Your task to perform on an android device: toggle wifi Image 0: 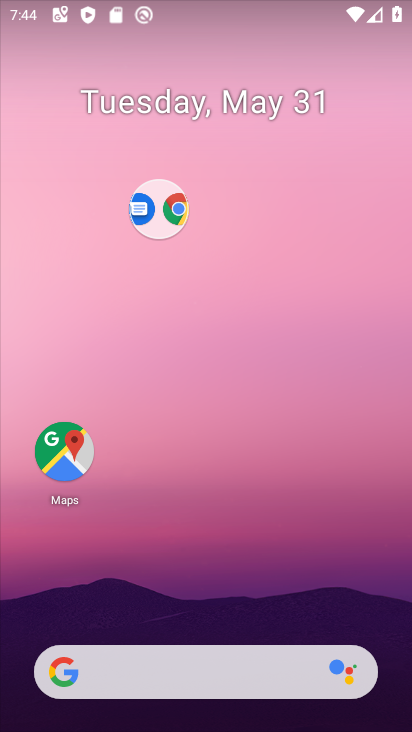
Step 0: drag from (190, 604) to (128, 28)
Your task to perform on an android device: toggle wifi Image 1: 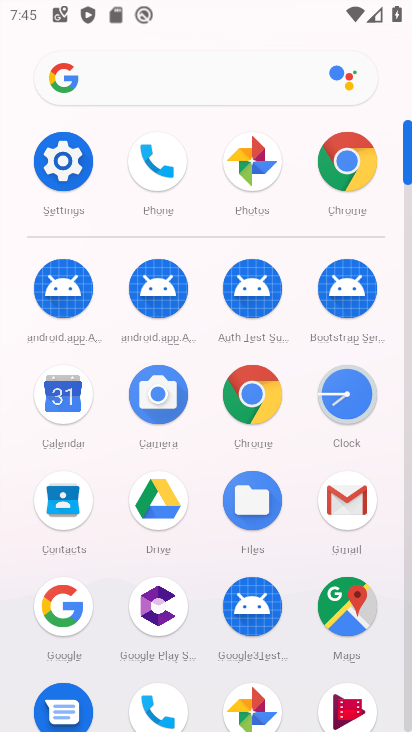
Step 1: click (75, 161)
Your task to perform on an android device: toggle wifi Image 2: 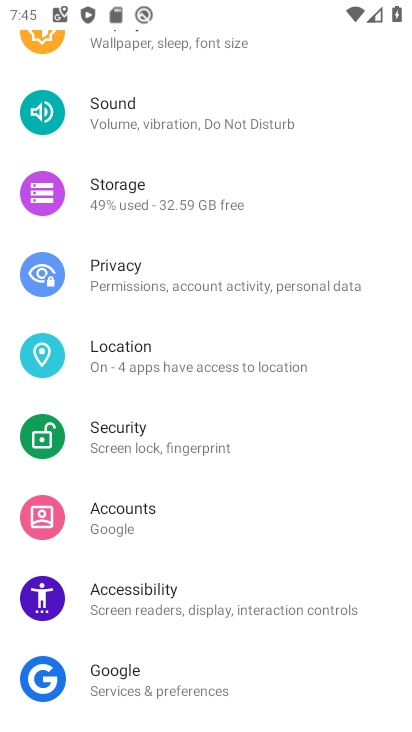
Step 2: drag from (194, 137) to (202, 471)
Your task to perform on an android device: toggle wifi Image 3: 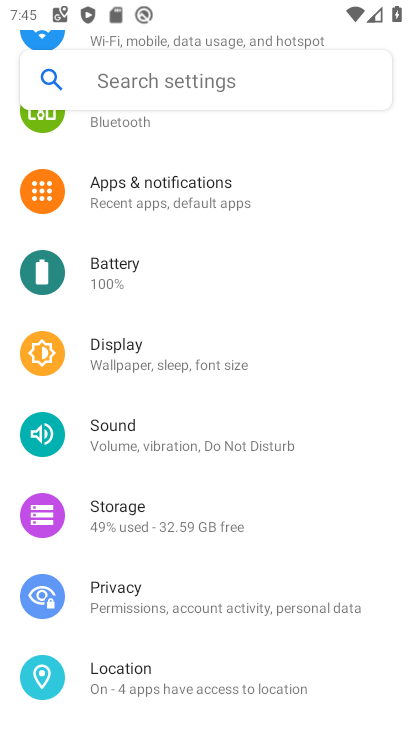
Step 3: drag from (157, 257) to (164, 667)
Your task to perform on an android device: toggle wifi Image 4: 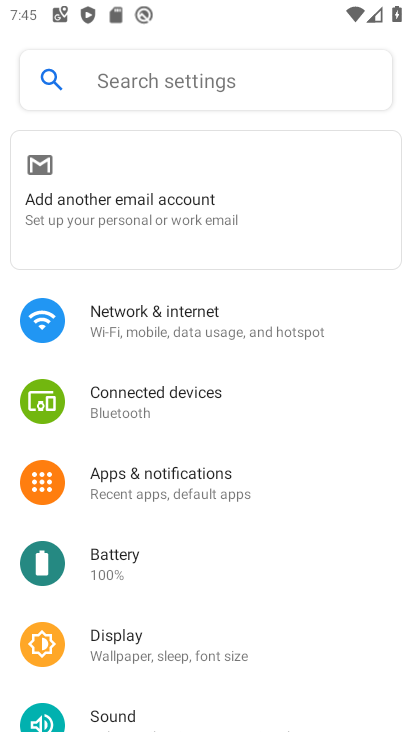
Step 4: click (151, 337)
Your task to perform on an android device: toggle wifi Image 5: 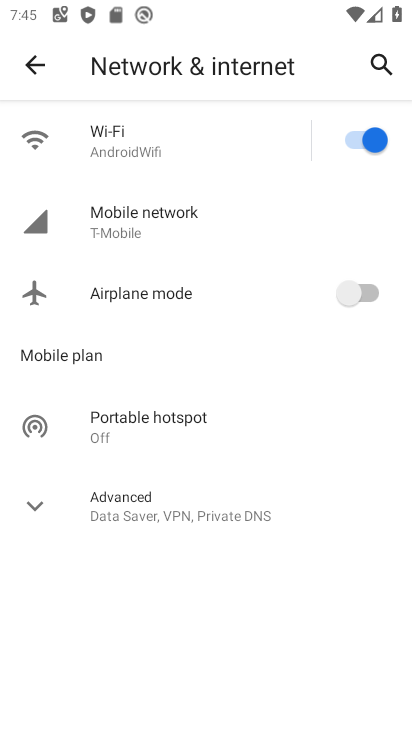
Step 5: click (356, 144)
Your task to perform on an android device: toggle wifi Image 6: 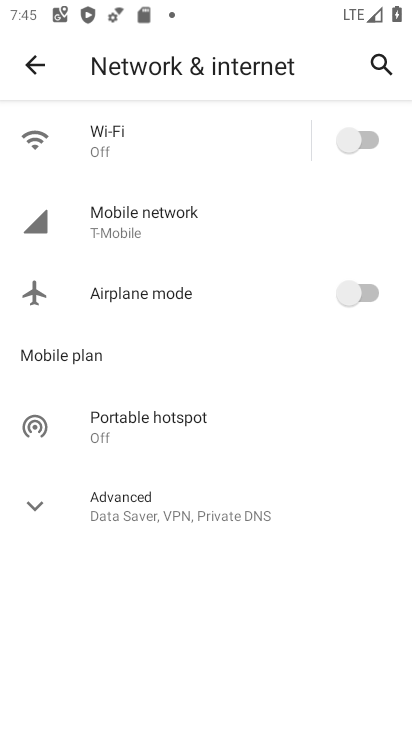
Step 6: task complete